Your task to perform on an android device: show emergency info Image 0: 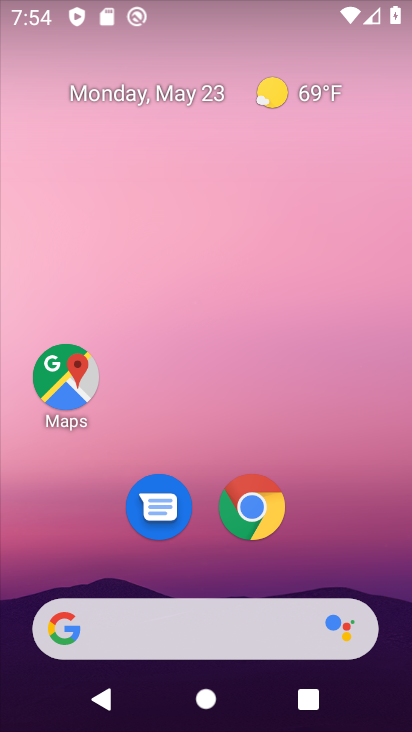
Step 0: drag from (385, 586) to (281, 1)
Your task to perform on an android device: show emergency info Image 1: 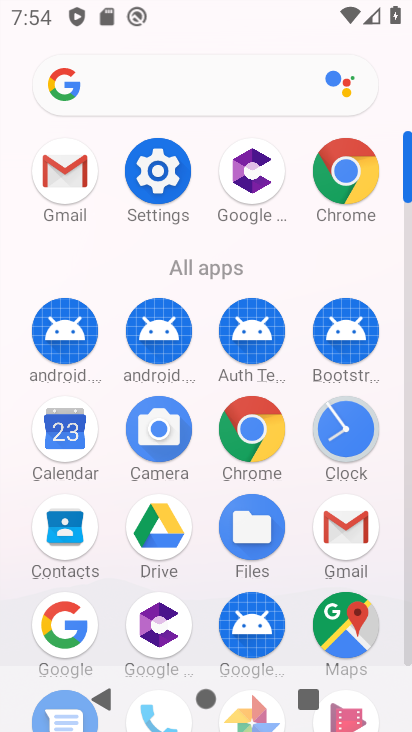
Step 1: click (151, 177)
Your task to perform on an android device: show emergency info Image 2: 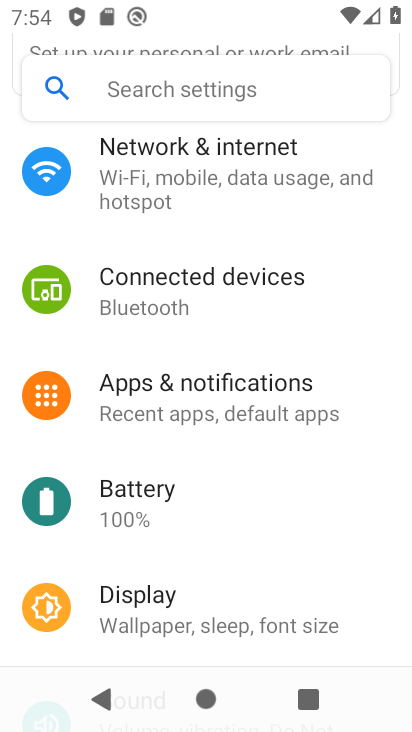
Step 2: drag from (380, 614) to (384, 76)
Your task to perform on an android device: show emergency info Image 3: 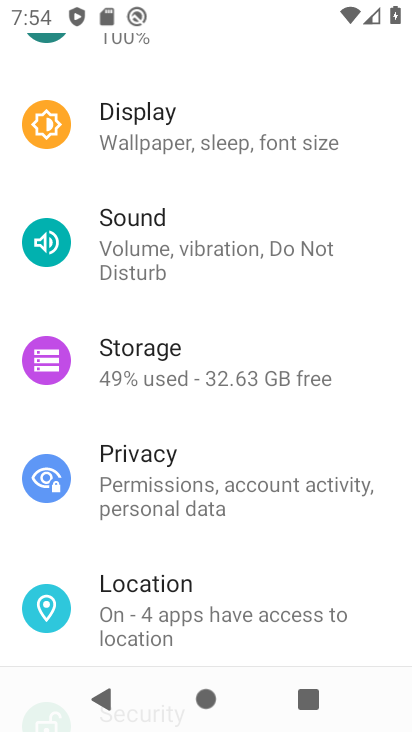
Step 3: drag from (350, 586) to (351, 115)
Your task to perform on an android device: show emergency info Image 4: 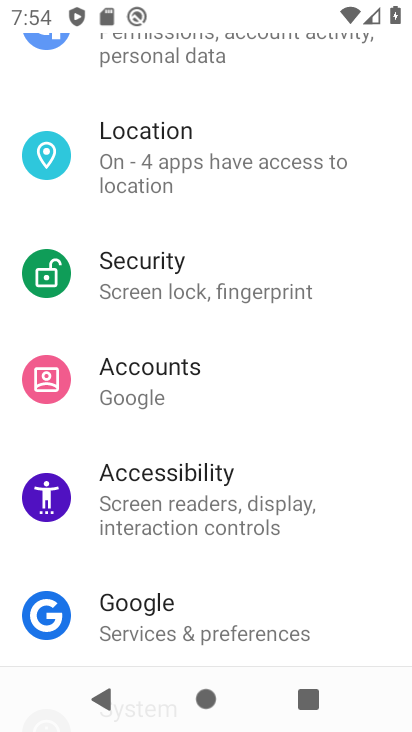
Step 4: drag from (347, 579) to (351, 104)
Your task to perform on an android device: show emergency info Image 5: 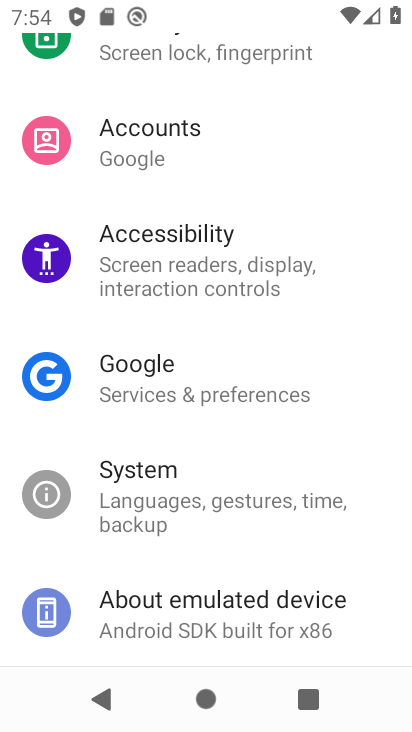
Step 5: click (179, 613)
Your task to perform on an android device: show emergency info Image 6: 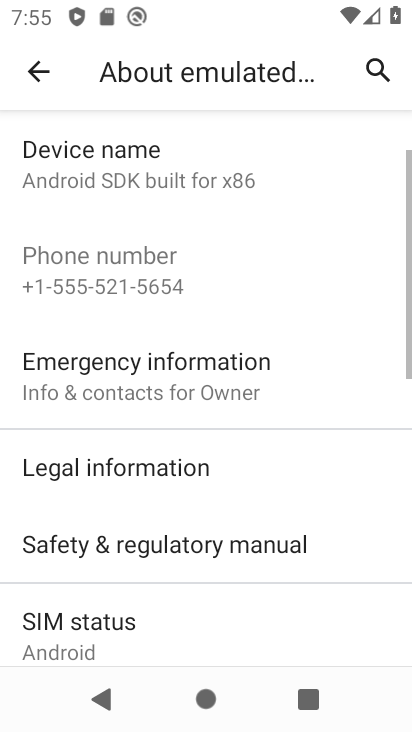
Step 6: click (120, 377)
Your task to perform on an android device: show emergency info Image 7: 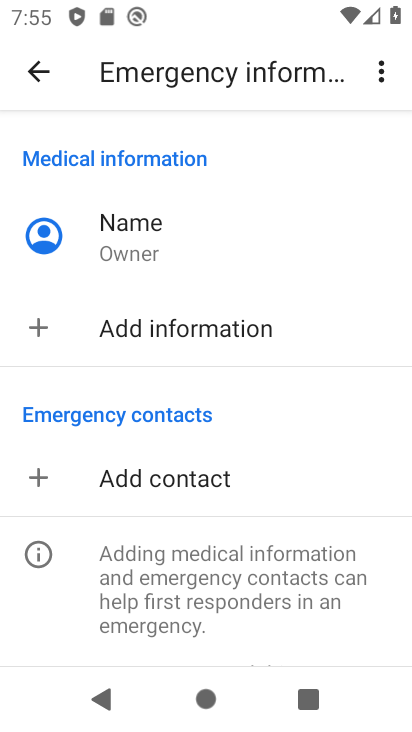
Step 7: task complete